Your task to perform on an android device: Open calendar and show me the second week of next month Image 0: 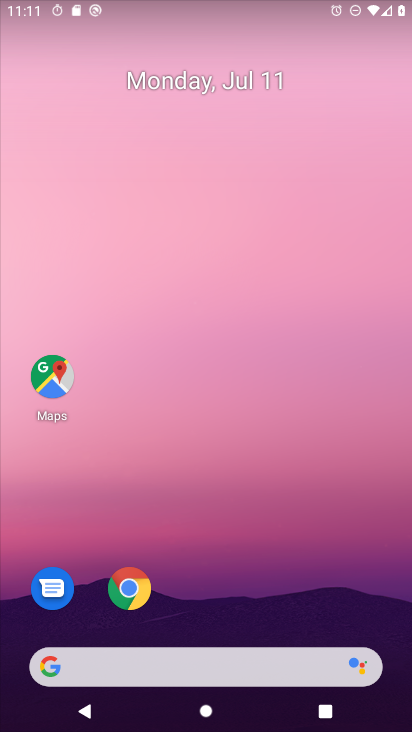
Step 0: drag from (222, 600) to (278, 3)
Your task to perform on an android device: Open calendar and show me the second week of next month Image 1: 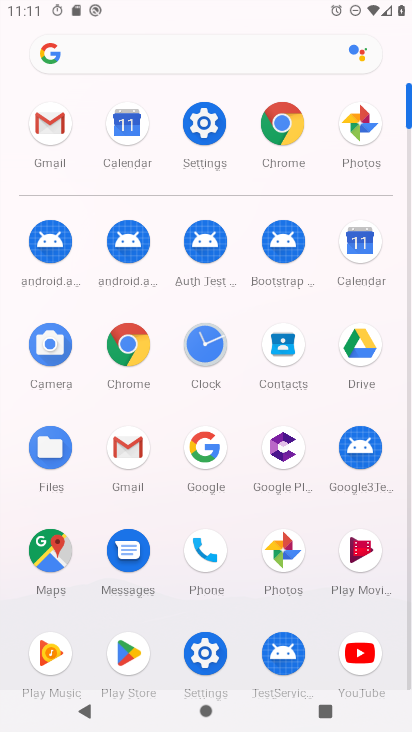
Step 1: click (353, 254)
Your task to perform on an android device: Open calendar and show me the second week of next month Image 2: 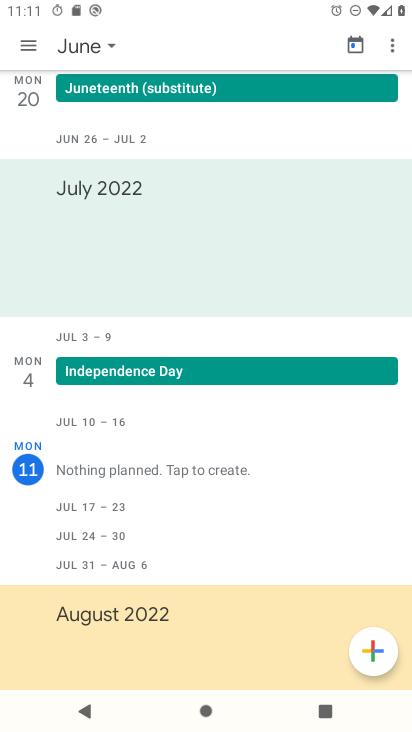
Step 2: click (87, 44)
Your task to perform on an android device: Open calendar and show me the second week of next month Image 3: 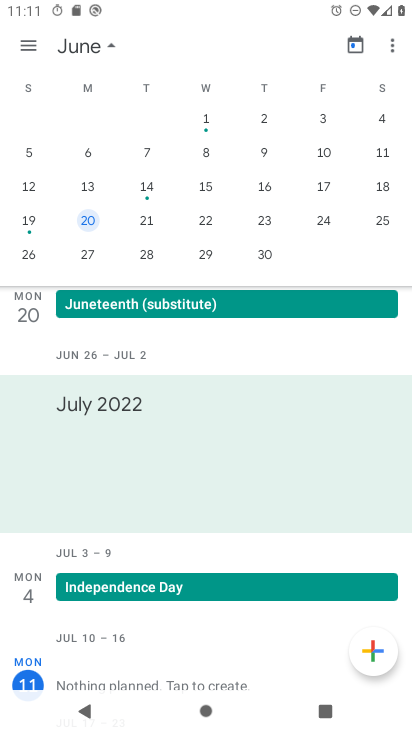
Step 3: drag from (355, 188) to (32, 161)
Your task to perform on an android device: Open calendar and show me the second week of next month Image 4: 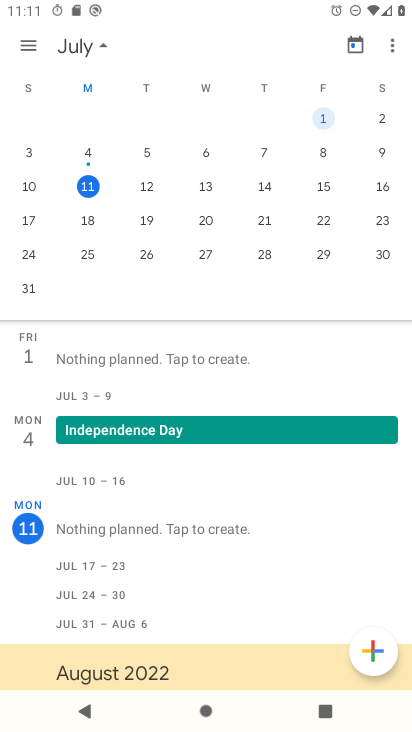
Step 4: drag from (385, 175) to (121, 182)
Your task to perform on an android device: Open calendar and show me the second week of next month Image 5: 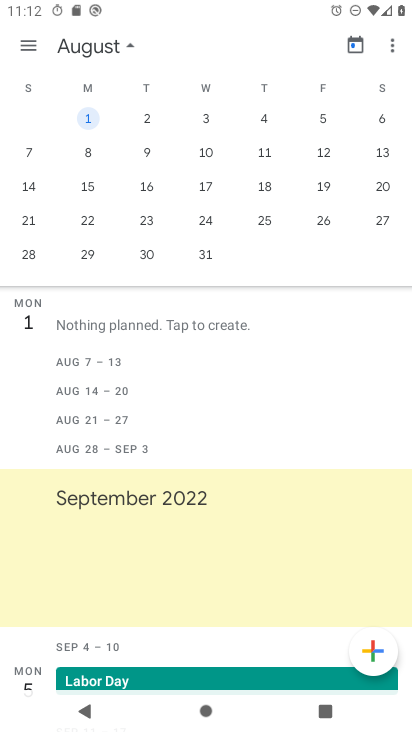
Step 5: click (90, 148)
Your task to perform on an android device: Open calendar and show me the second week of next month Image 6: 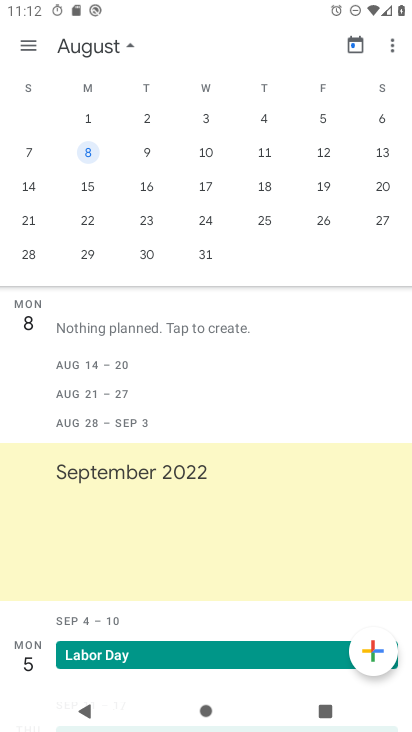
Step 6: task complete